Your task to perform on an android device: turn on the 12-hour format for clock Image 0: 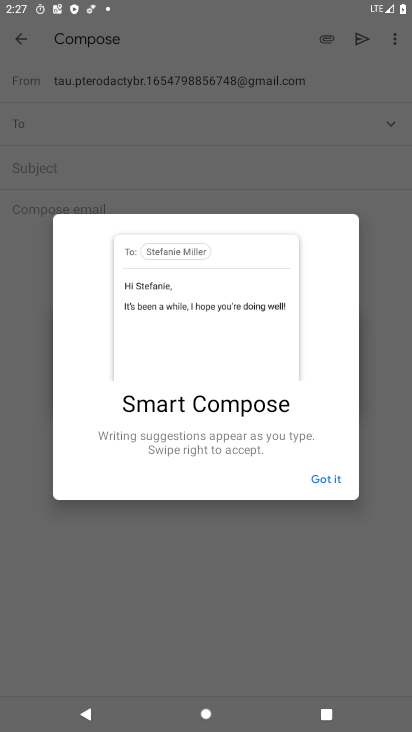
Step 0: press home button
Your task to perform on an android device: turn on the 12-hour format for clock Image 1: 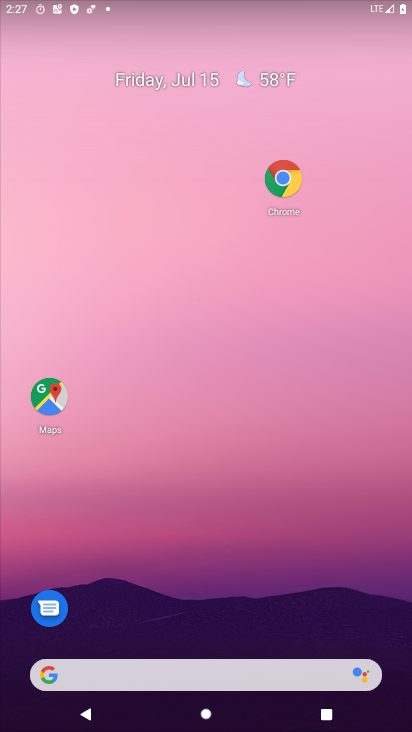
Step 1: drag from (217, 582) to (187, 73)
Your task to perform on an android device: turn on the 12-hour format for clock Image 2: 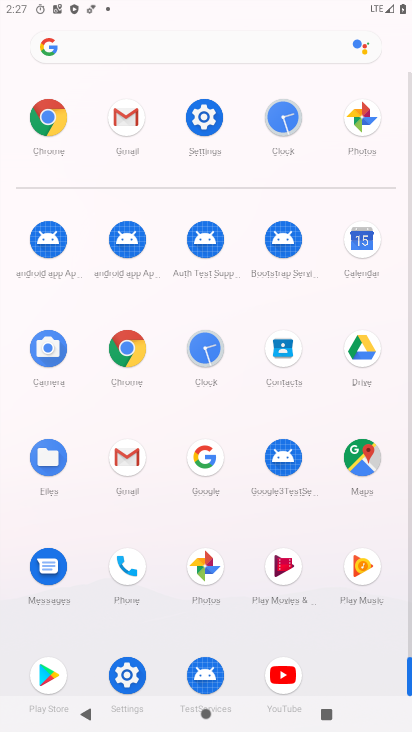
Step 2: click (202, 348)
Your task to perform on an android device: turn on the 12-hour format for clock Image 3: 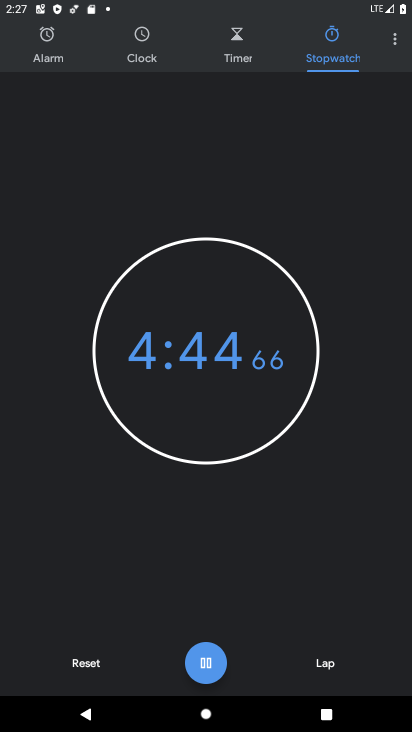
Step 3: click (391, 45)
Your task to perform on an android device: turn on the 12-hour format for clock Image 4: 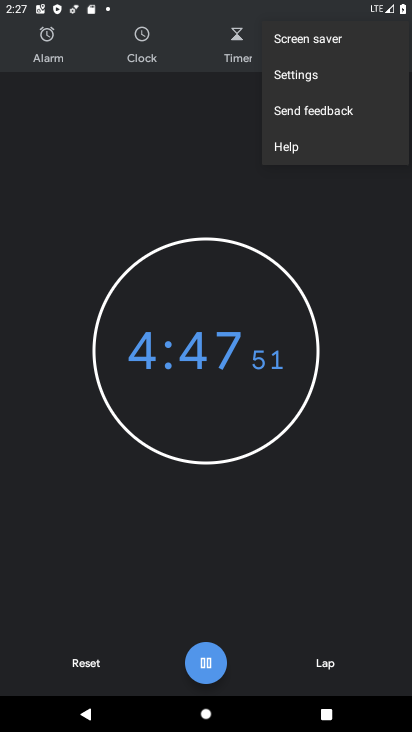
Step 4: click (291, 82)
Your task to perform on an android device: turn on the 12-hour format for clock Image 5: 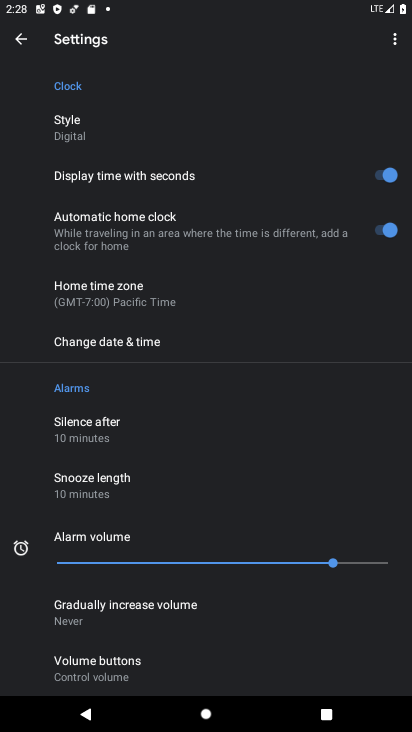
Step 5: click (117, 329)
Your task to perform on an android device: turn on the 12-hour format for clock Image 6: 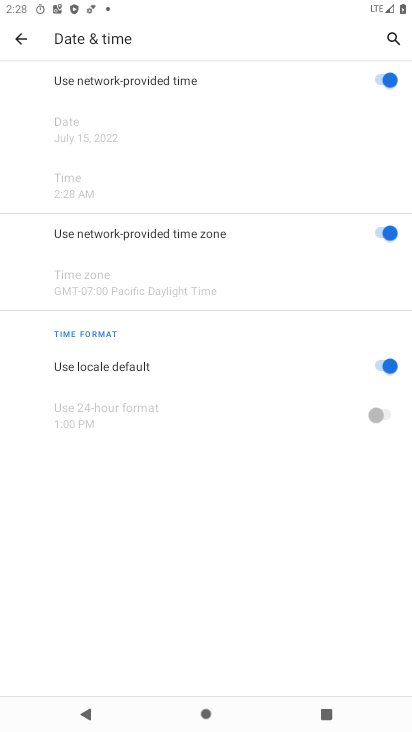
Step 6: task complete